Your task to perform on an android device: Toggle the flashlight Image 0: 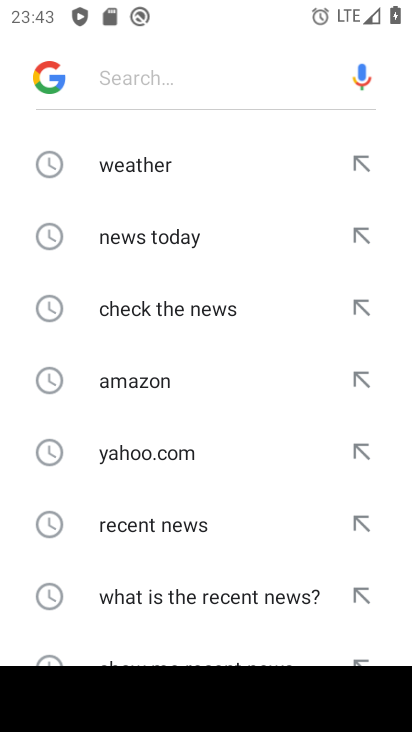
Step 0: press home button
Your task to perform on an android device: Toggle the flashlight Image 1: 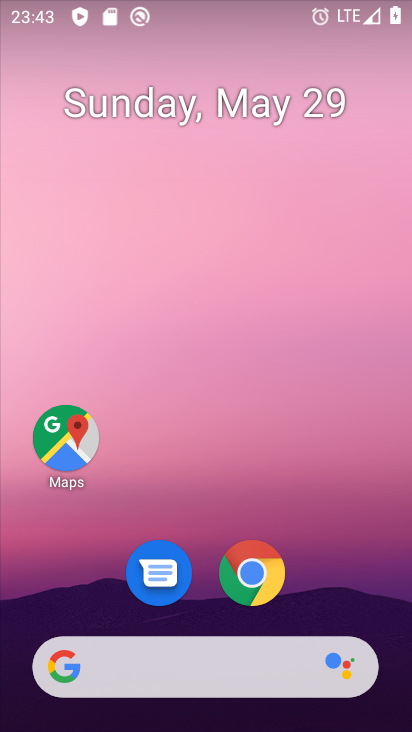
Step 1: task complete